Your task to perform on an android device: make emails show in primary in the gmail app Image 0: 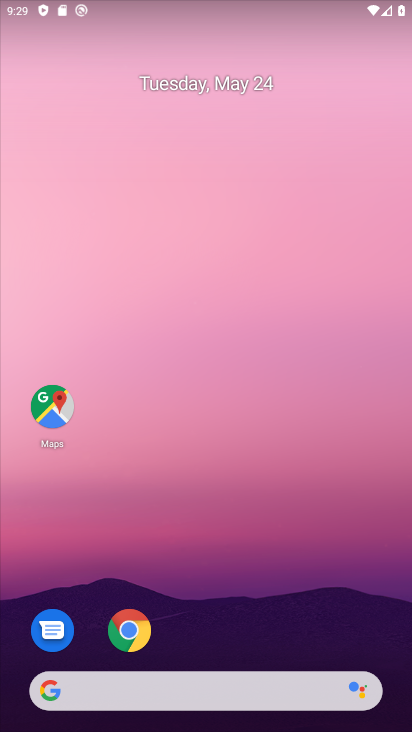
Step 0: press home button
Your task to perform on an android device: make emails show in primary in the gmail app Image 1: 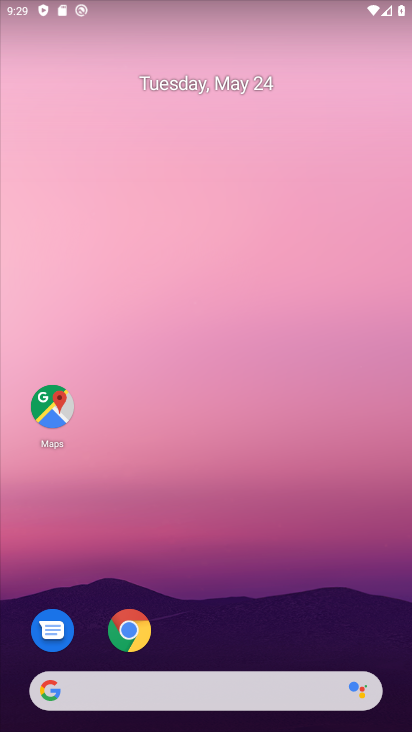
Step 1: drag from (204, 645) to (244, 95)
Your task to perform on an android device: make emails show in primary in the gmail app Image 2: 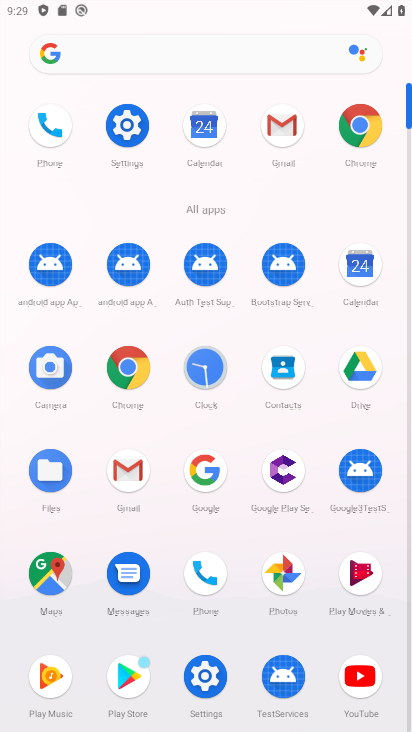
Step 2: click (284, 108)
Your task to perform on an android device: make emails show in primary in the gmail app Image 3: 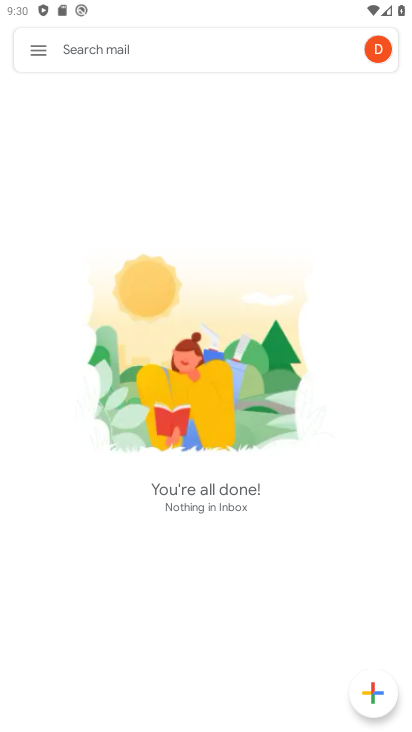
Step 3: click (30, 35)
Your task to perform on an android device: make emails show in primary in the gmail app Image 4: 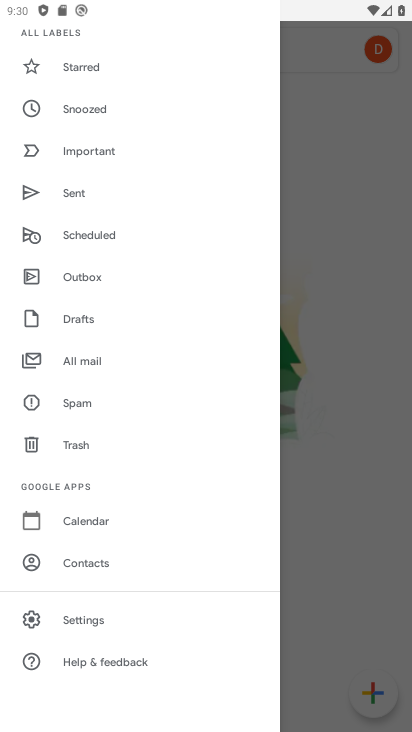
Step 4: click (55, 617)
Your task to perform on an android device: make emails show in primary in the gmail app Image 5: 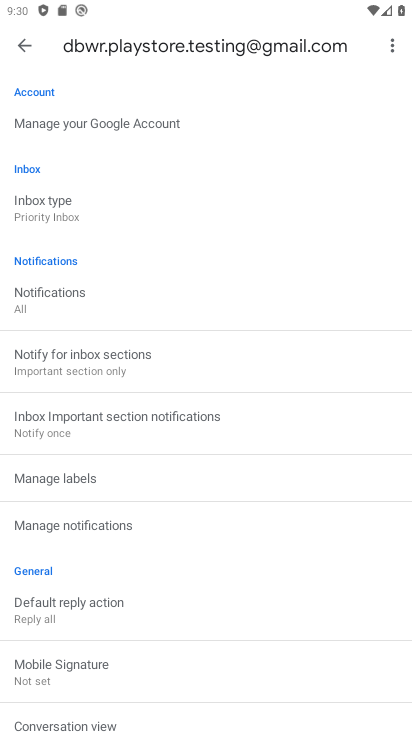
Step 5: click (97, 205)
Your task to perform on an android device: make emails show in primary in the gmail app Image 6: 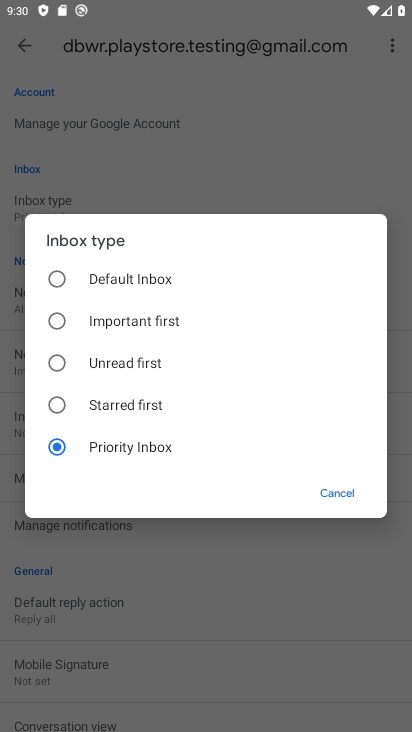
Step 6: click (66, 273)
Your task to perform on an android device: make emails show in primary in the gmail app Image 7: 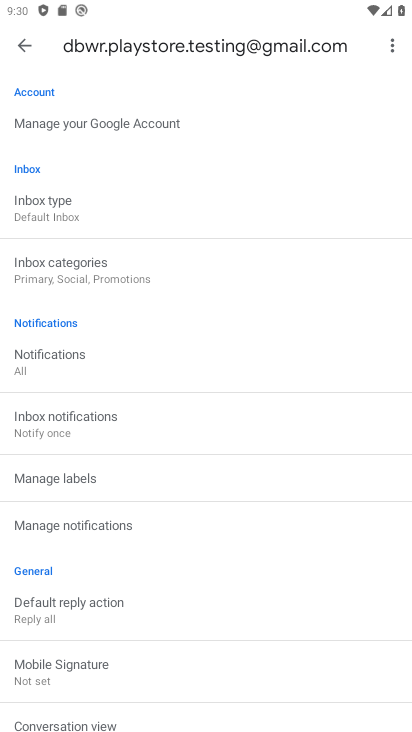
Step 7: task complete